Your task to perform on an android device: check google app version Image 0: 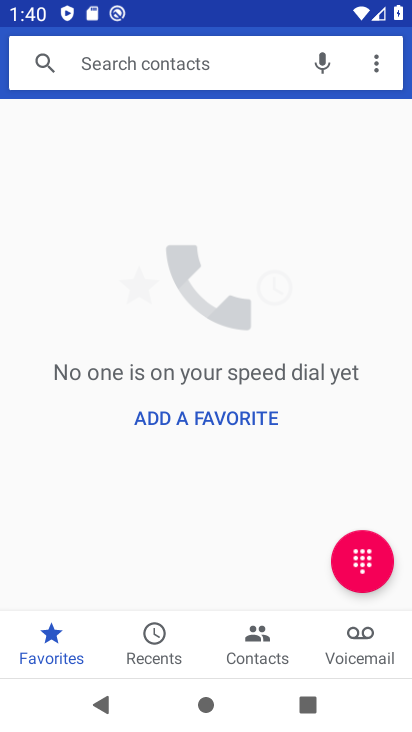
Step 0: press home button
Your task to perform on an android device: check google app version Image 1: 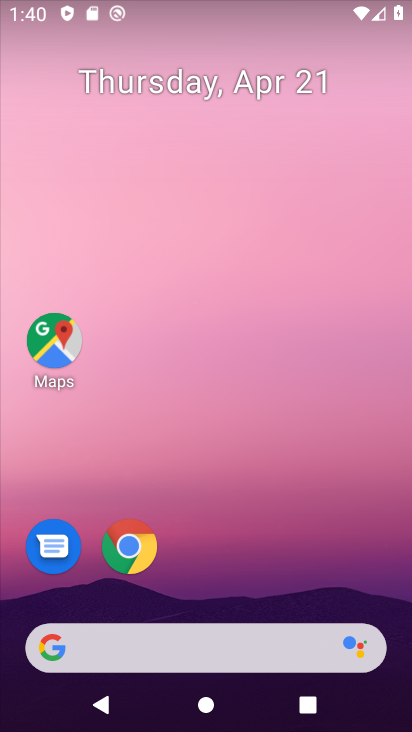
Step 1: click (65, 650)
Your task to perform on an android device: check google app version Image 2: 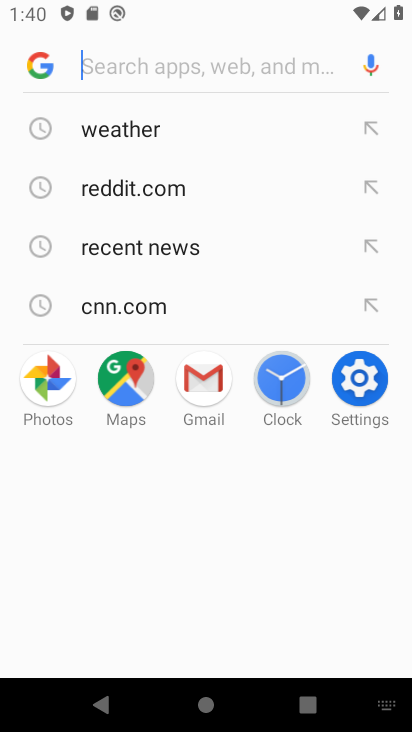
Step 2: click (34, 58)
Your task to perform on an android device: check google app version Image 3: 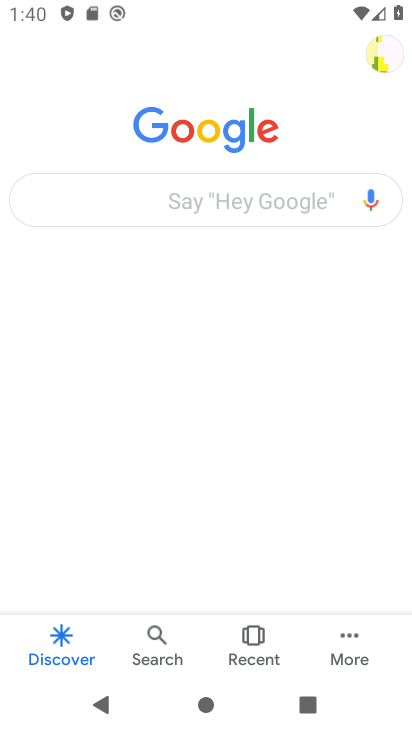
Step 3: click (360, 634)
Your task to perform on an android device: check google app version Image 4: 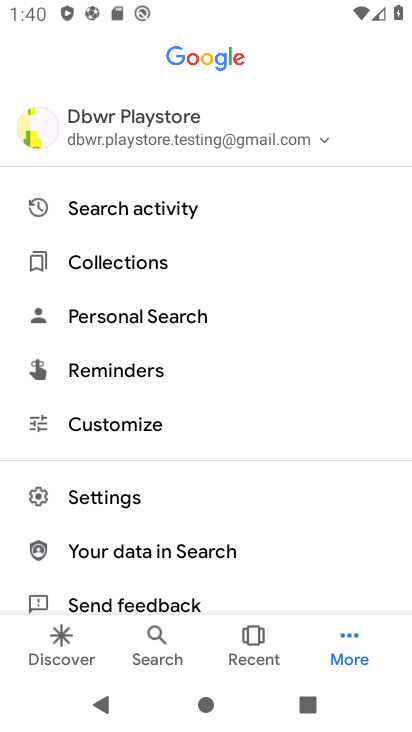
Step 4: click (126, 503)
Your task to perform on an android device: check google app version Image 5: 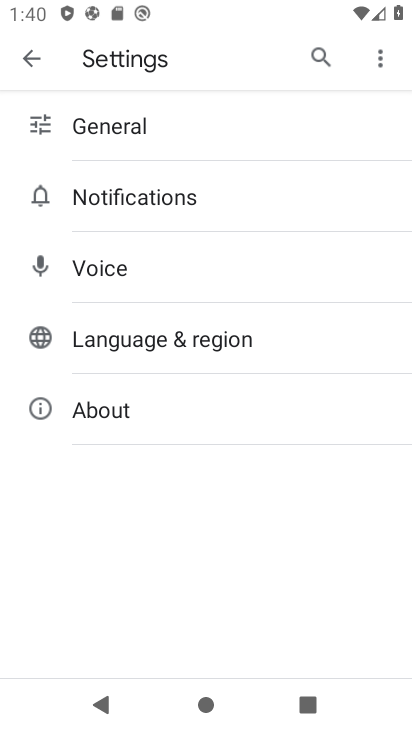
Step 5: click (127, 389)
Your task to perform on an android device: check google app version Image 6: 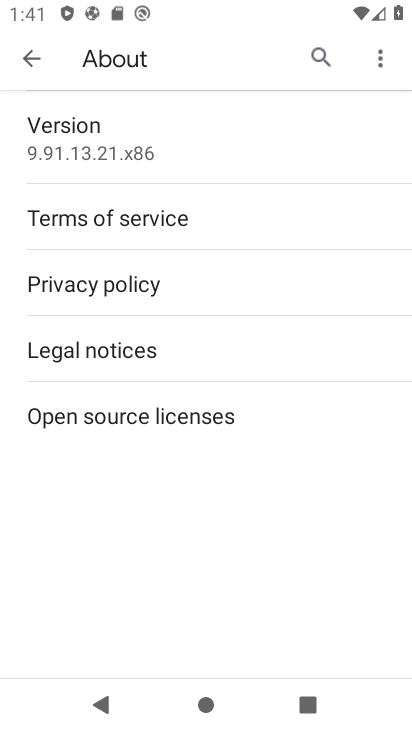
Step 6: task complete